Your task to perform on an android device: Open Amazon Image 0: 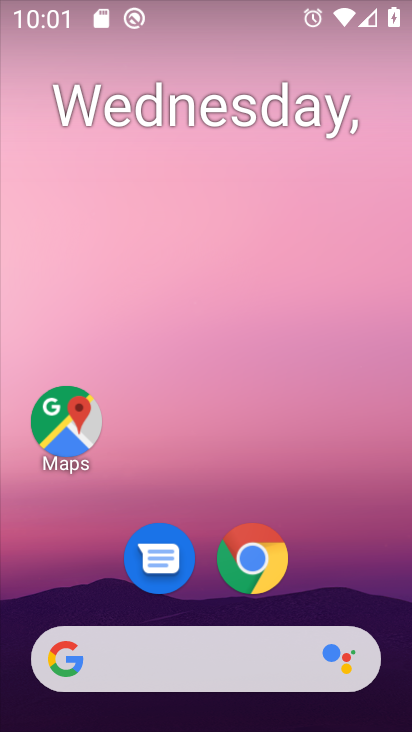
Step 0: drag from (380, 574) to (380, 99)
Your task to perform on an android device: Open Amazon Image 1: 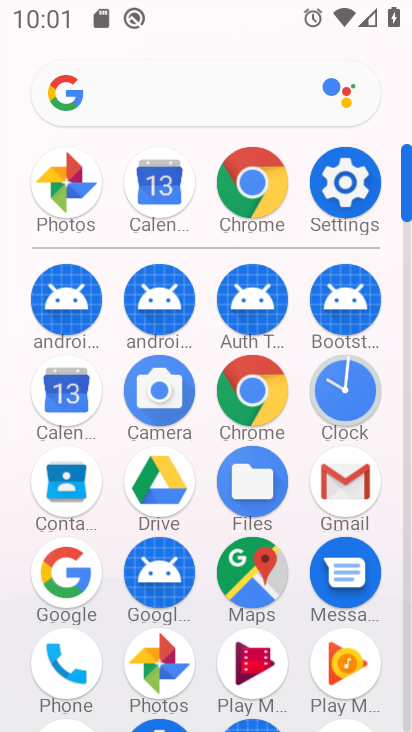
Step 1: click (259, 405)
Your task to perform on an android device: Open Amazon Image 2: 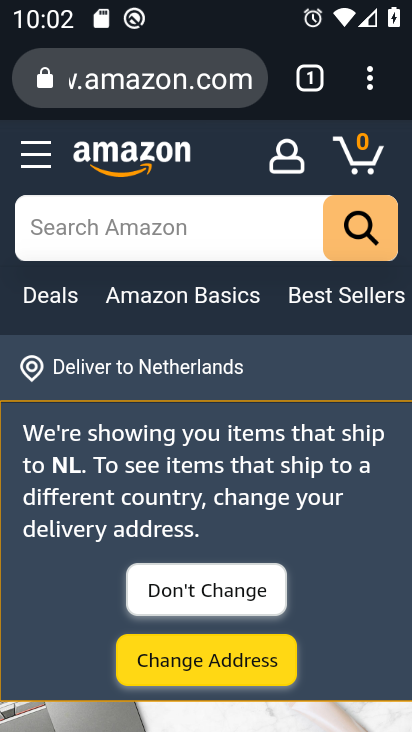
Step 2: task complete